Your task to perform on an android device: turn on javascript in the chrome app Image 0: 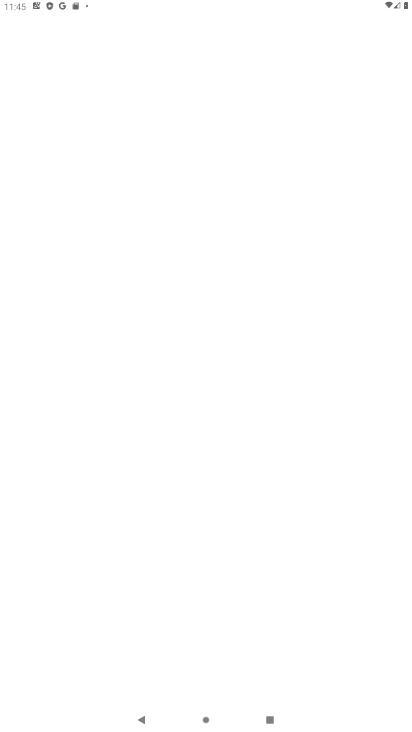
Step 0: drag from (218, 720) to (219, 239)
Your task to perform on an android device: turn on javascript in the chrome app Image 1: 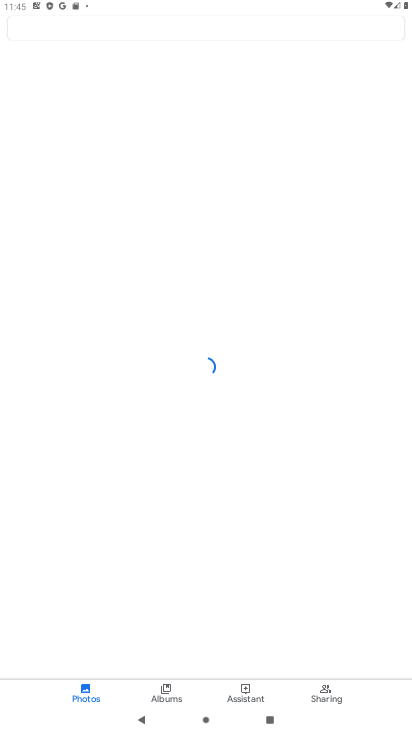
Step 1: press home button
Your task to perform on an android device: turn on javascript in the chrome app Image 2: 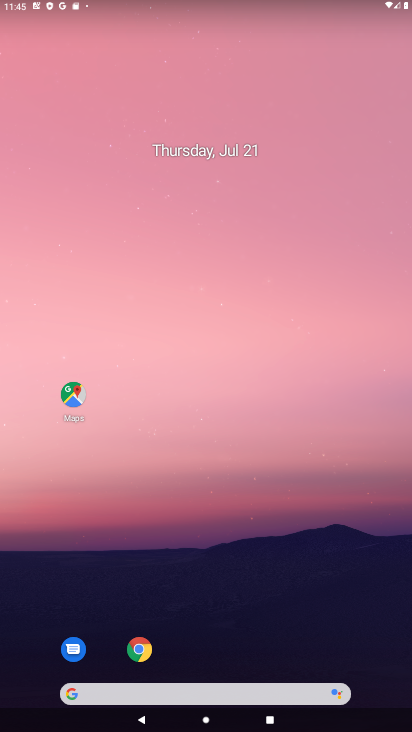
Step 2: click (137, 650)
Your task to perform on an android device: turn on javascript in the chrome app Image 3: 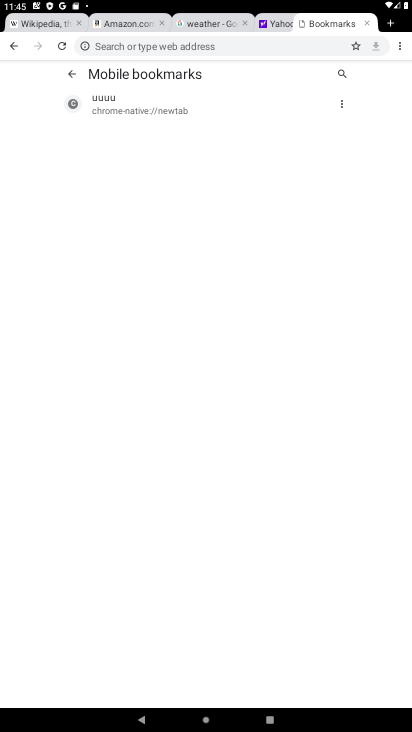
Step 3: click (399, 51)
Your task to perform on an android device: turn on javascript in the chrome app Image 4: 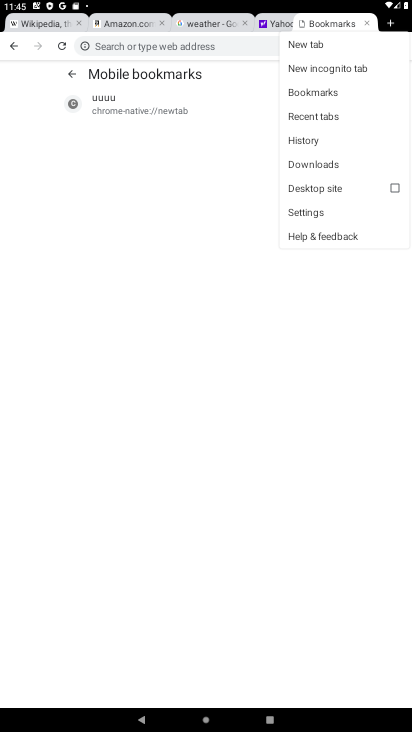
Step 4: click (306, 211)
Your task to perform on an android device: turn on javascript in the chrome app Image 5: 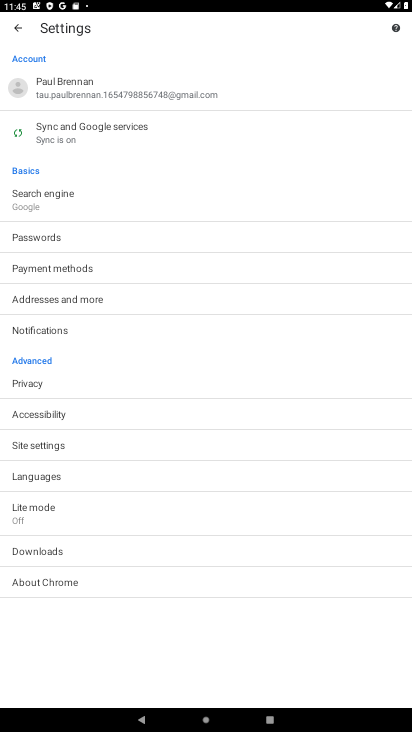
Step 5: click (26, 445)
Your task to perform on an android device: turn on javascript in the chrome app Image 6: 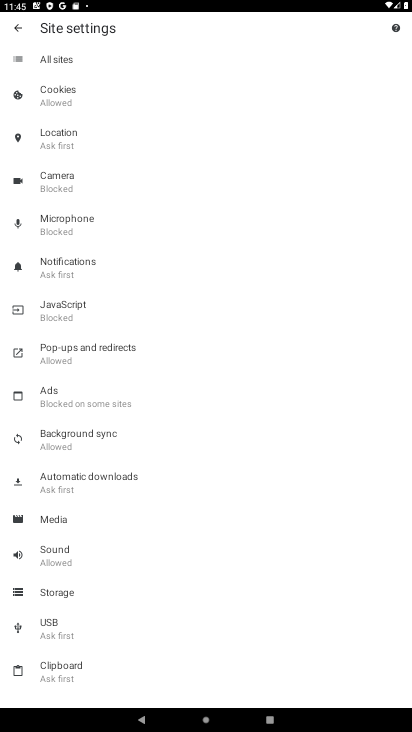
Step 6: click (57, 310)
Your task to perform on an android device: turn on javascript in the chrome app Image 7: 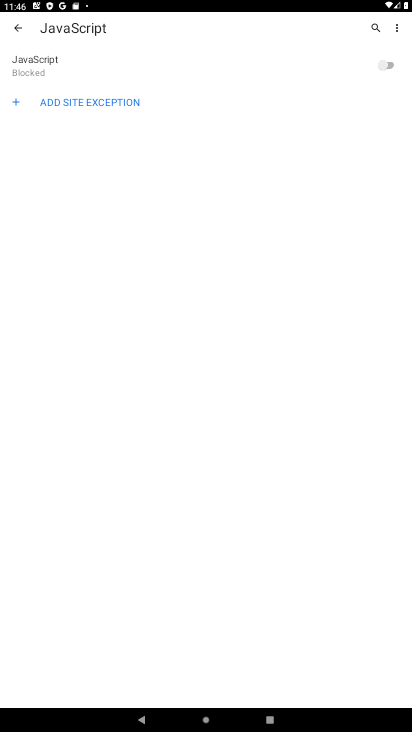
Step 7: click (388, 62)
Your task to perform on an android device: turn on javascript in the chrome app Image 8: 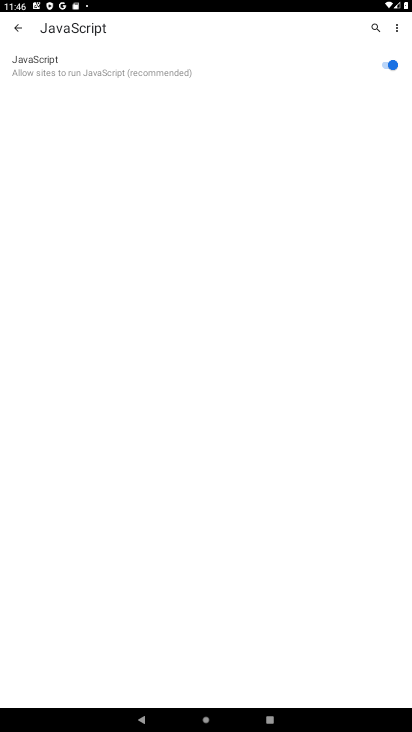
Step 8: task complete